Your task to perform on an android device: delete location history Image 0: 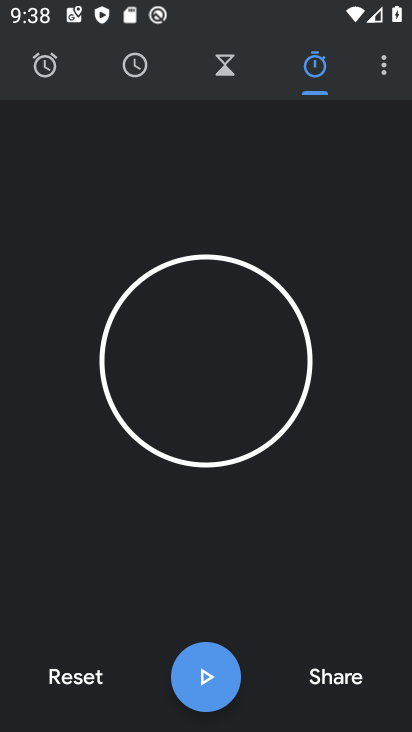
Step 0: press home button
Your task to perform on an android device: delete location history Image 1: 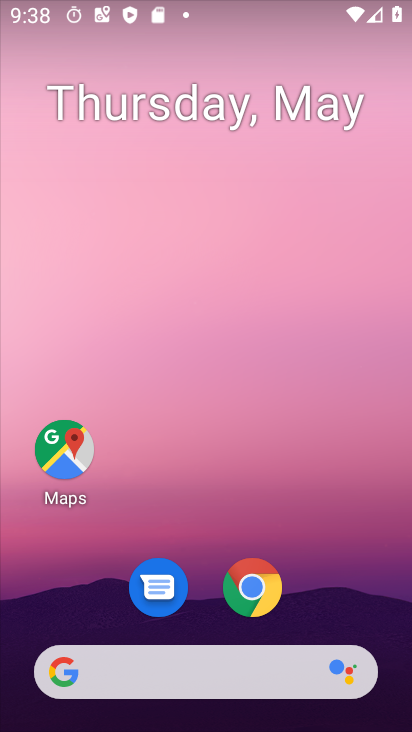
Step 1: click (52, 454)
Your task to perform on an android device: delete location history Image 2: 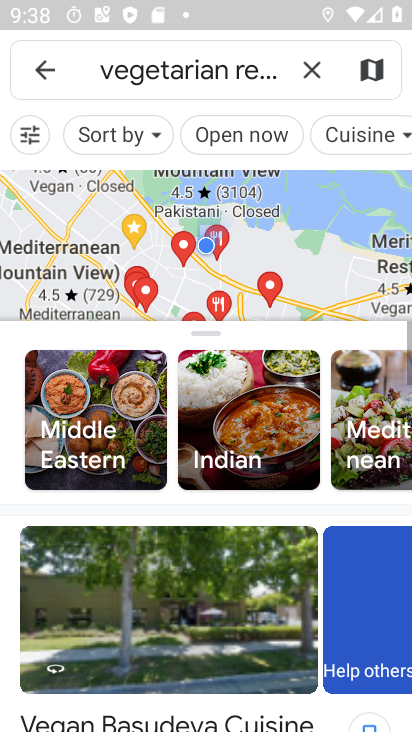
Step 2: click (311, 73)
Your task to perform on an android device: delete location history Image 3: 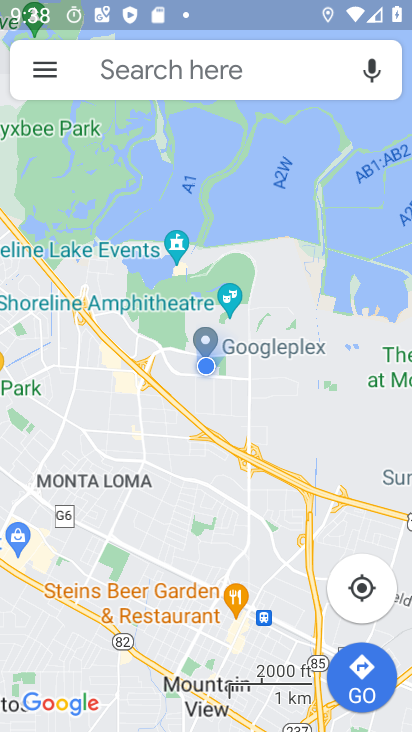
Step 3: click (47, 72)
Your task to perform on an android device: delete location history Image 4: 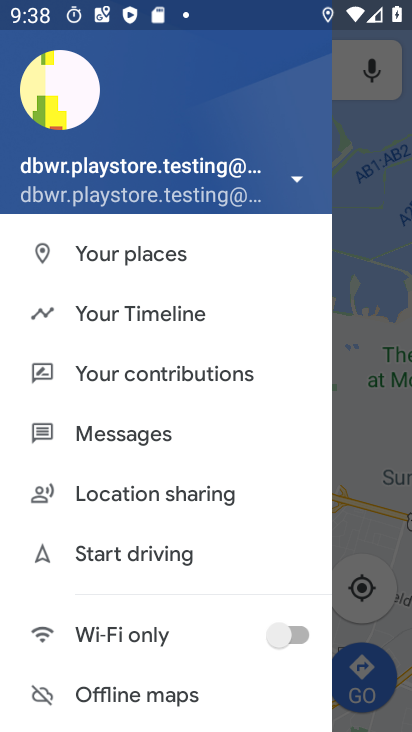
Step 4: click (117, 318)
Your task to perform on an android device: delete location history Image 5: 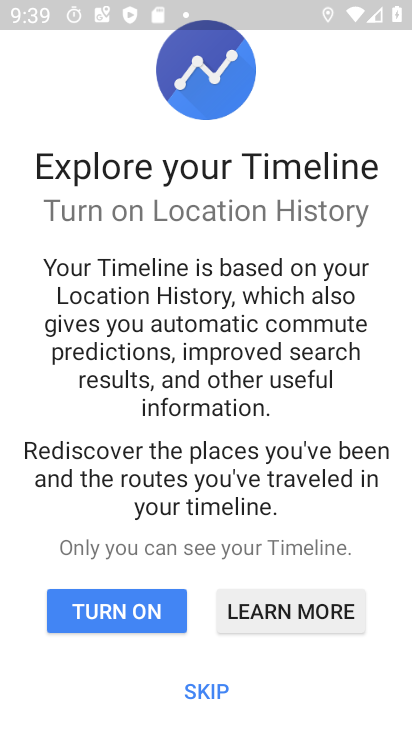
Step 5: click (199, 692)
Your task to perform on an android device: delete location history Image 6: 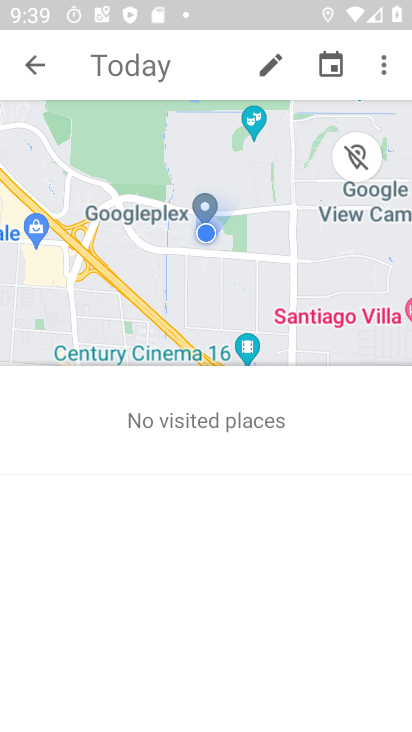
Step 6: click (385, 69)
Your task to perform on an android device: delete location history Image 7: 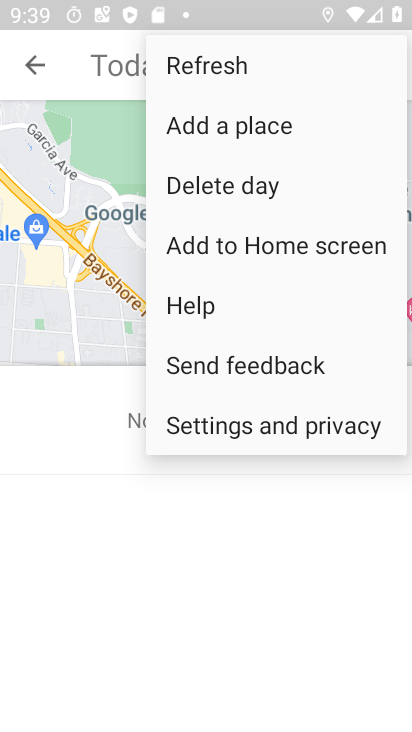
Step 7: click (263, 433)
Your task to perform on an android device: delete location history Image 8: 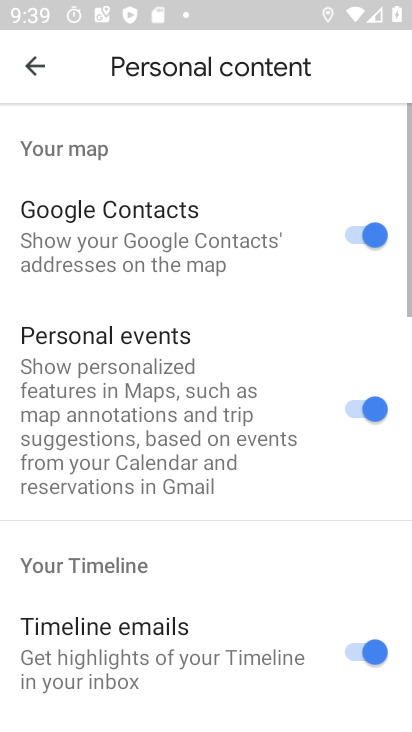
Step 8: drag from (185, 591) to (161, 75)
Your task to perform on an android device: delete location history Image 9: 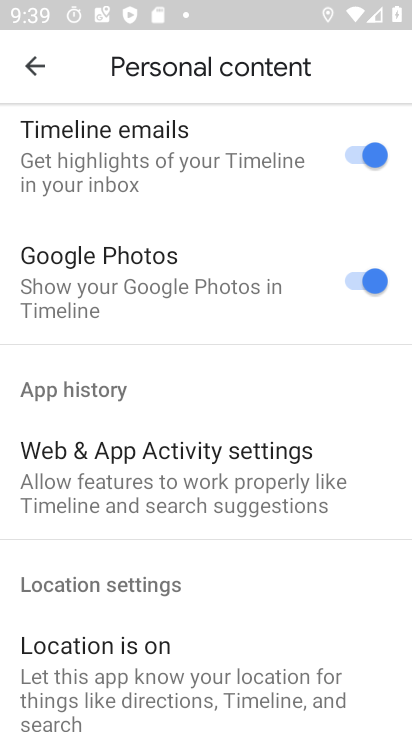
Step 9: drag from (147, 531) to (115, 80)
Your task to perform on an android device: delete location history Image 10: 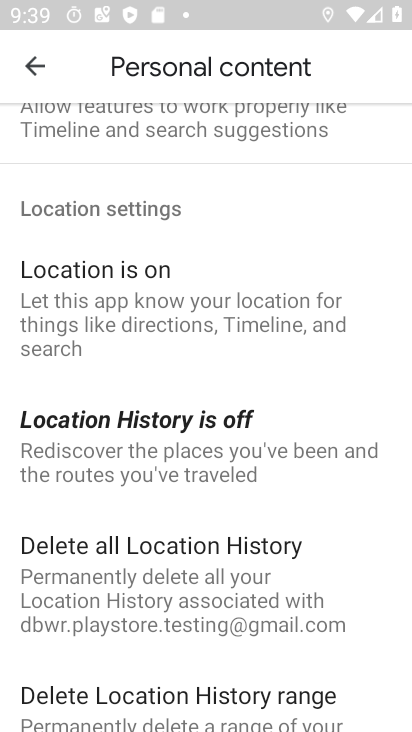
Step 10: drag from (123, 569) to (130, 233)
Your task to perform on an android device: delete location history Image 11: 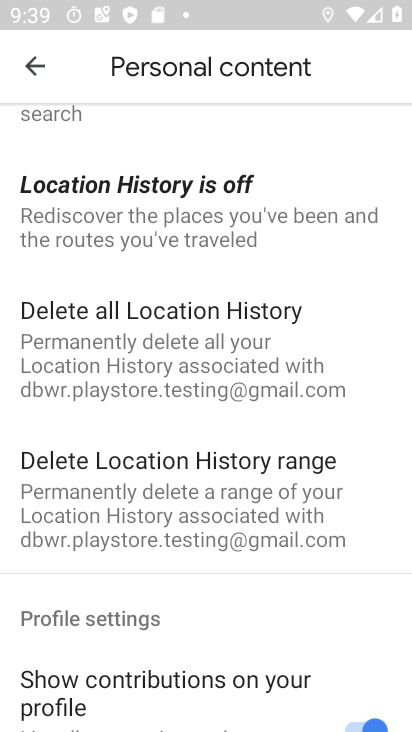
Step 11: click (131, 331)
Your task to perform on an android device: delete location history Image 12: 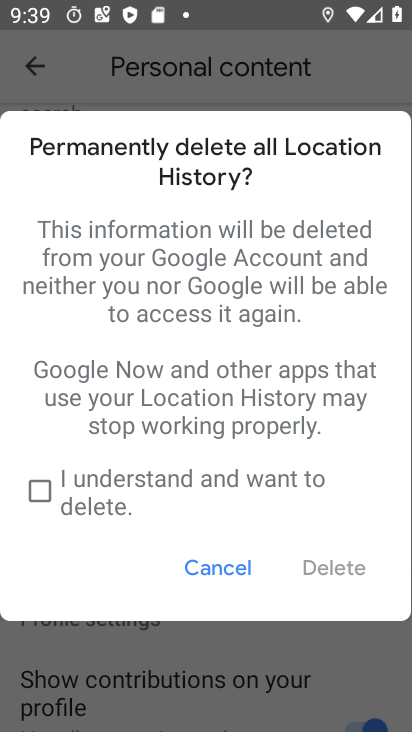
Step 12: click (29, 496)
Your task to perform on an android device: delete location history Image 13: 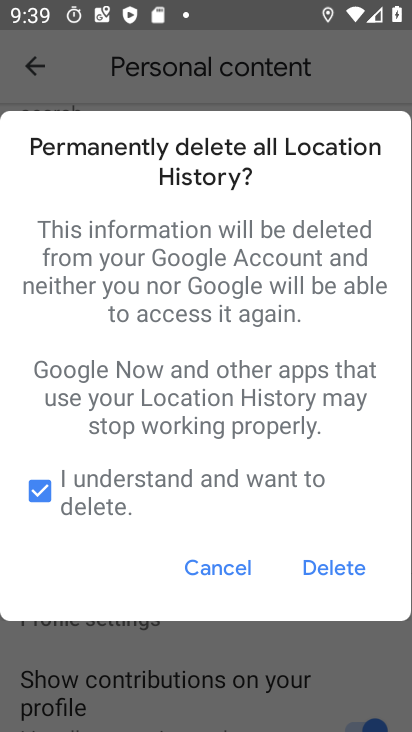
Step 13: click (319, 570)
Your task to perform on an android device: delete location history Image 14: 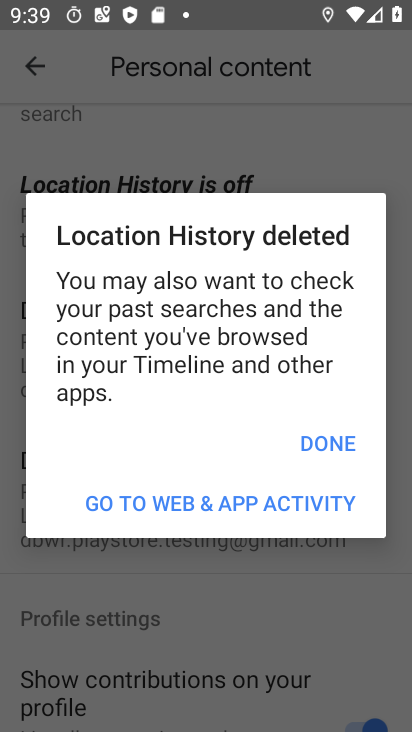
Step 14: click (331, 451)
Your task to perform on an android device: delete location history Image 15: 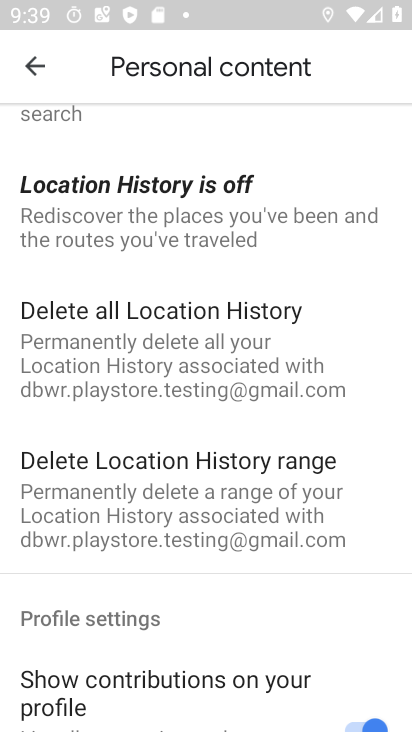
Step 15: task complete